Your task to perform on an android device: change the clock display to analog Image 0: 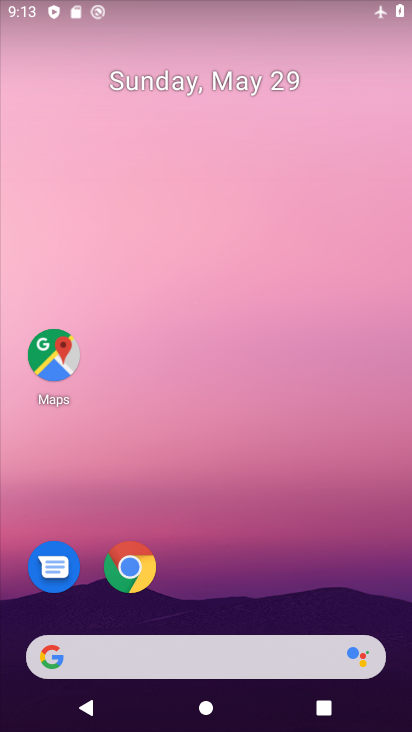
Step 0: drag from (383, 621) to (325, 65)
Your task to perform on an android device: change the clock display to analog Image 1: 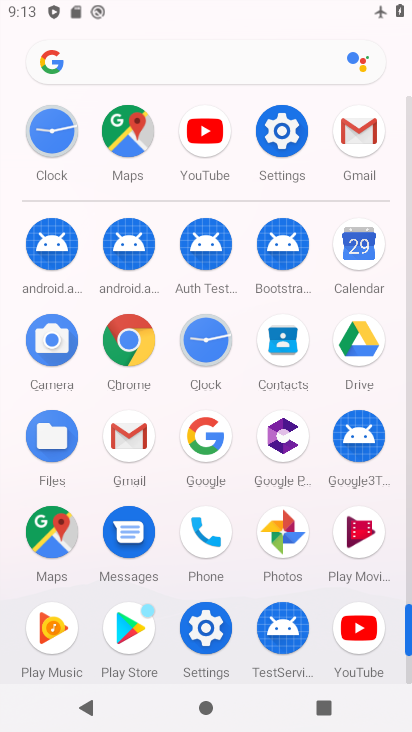
Step 1: click (203, 337)
Your task to perform on an android device: change the clock display to analog Image 2: 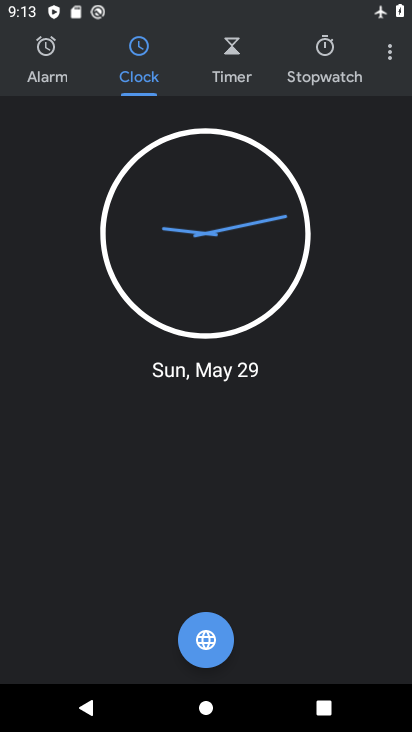
Step 2: click (387, 62)
Your task to perform on an android device: change the clock display to analog Image 3: 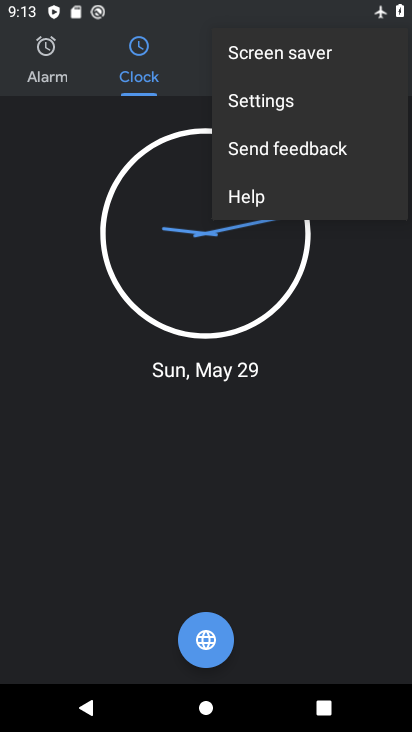
Step 3: click (264, 99)
Your task to perform on an android device: change the clock display to analog Image 4: 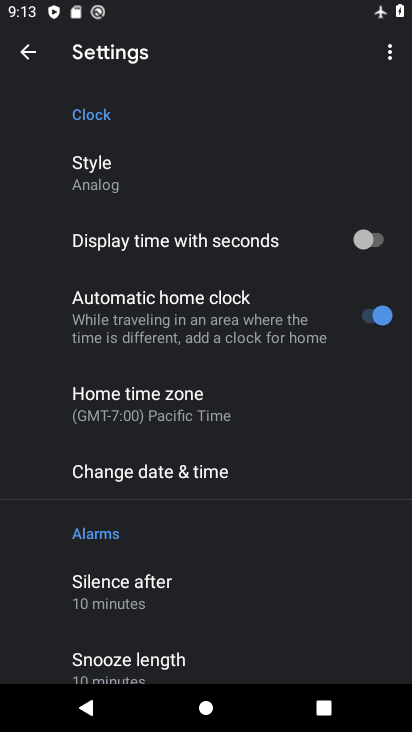
Step 4: task complete